Your task to perform on an android device: Open Yahoo.com Image 0: 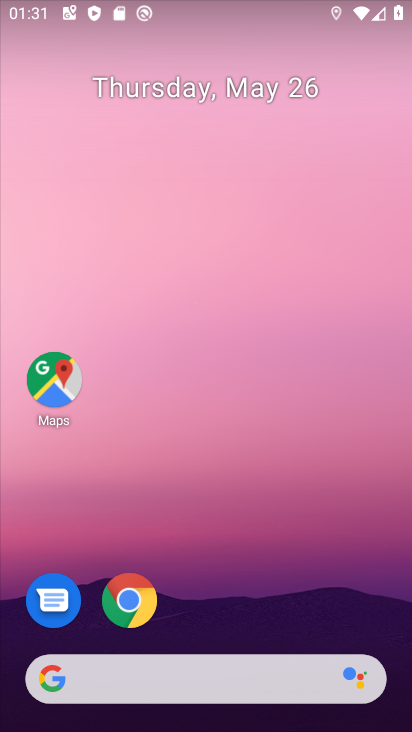
Step 0: click (114, 595)
Your task to perform on an android device: Open Yahoo.com Image 1: 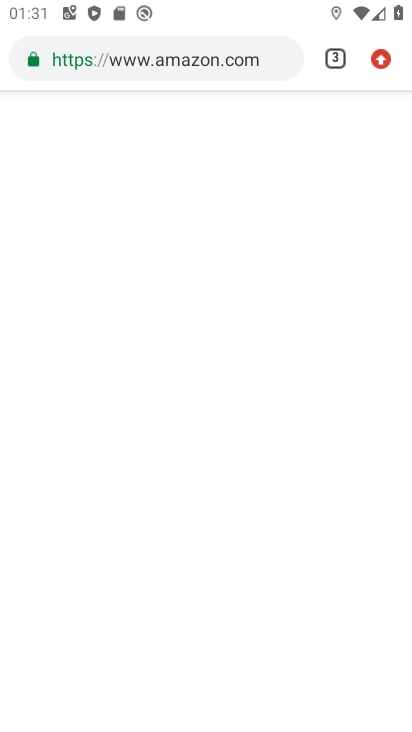
Step 1: click (332, 56)
Your task to perform on an android device: Open Yahoo.com Image 2: 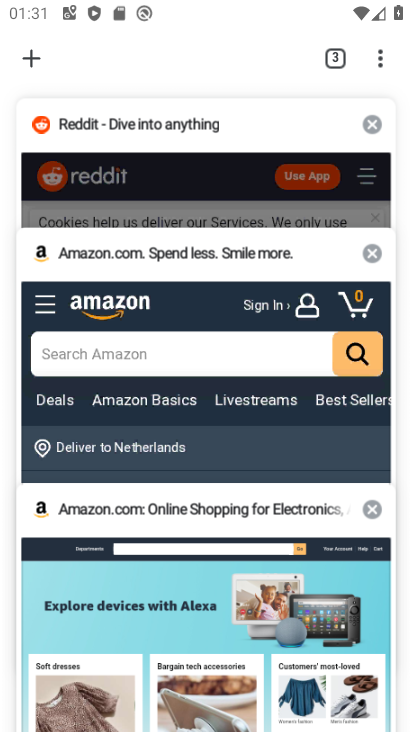
Step 2: click (21, 42)
Your task to perform on an android device: Open Yahoo.com Image 3: 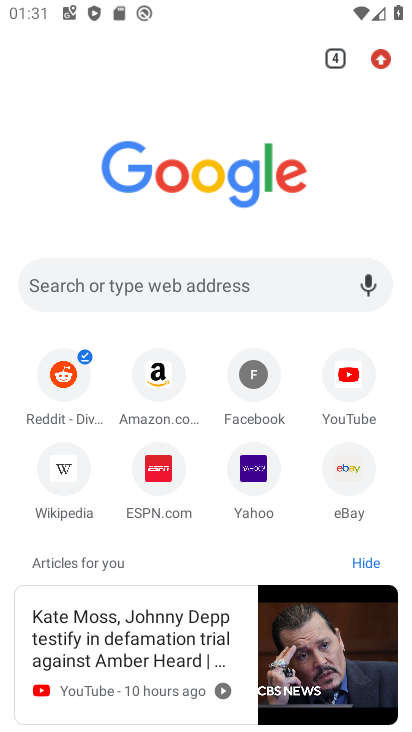
Step 3: click (260, 470)
Your task to perform on an android device: Open Yahoo.com Image 4: 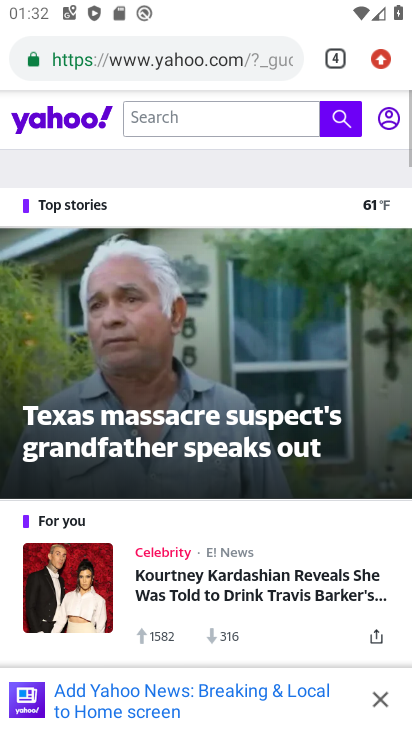
Step 4: task complete